Your task to perform on an android device: change alarm snooze length Image 0: 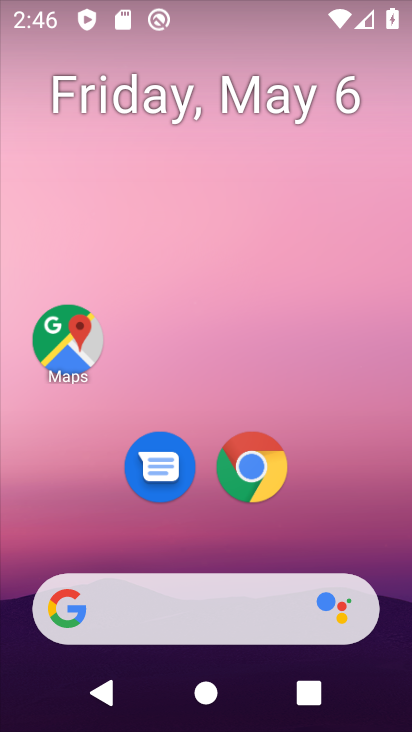
Step 0: drag from (199, 455) to (246, 39)
Your task to perform on an android device: change alarm snooze length Image 1: 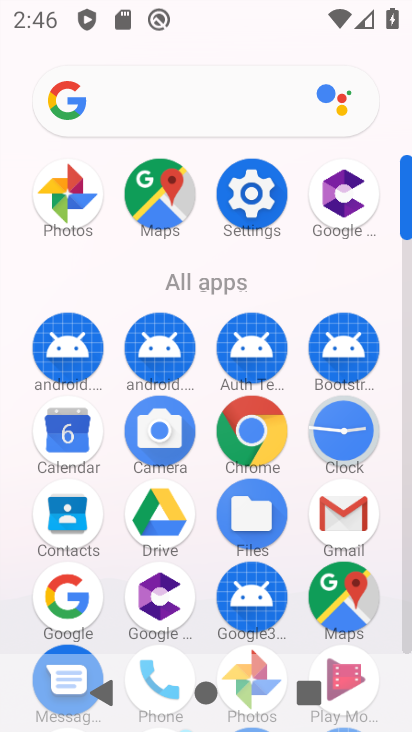
Step 1: click (336, 435)
Your task to perform on an android device: change alarm snooze length Image 2: 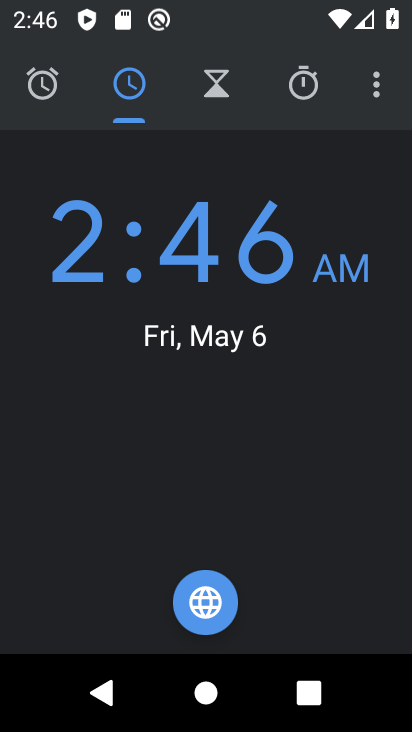
Step 2: click (375, 94)
Your task to perform on an android device: change alarm snooze length Image 3: 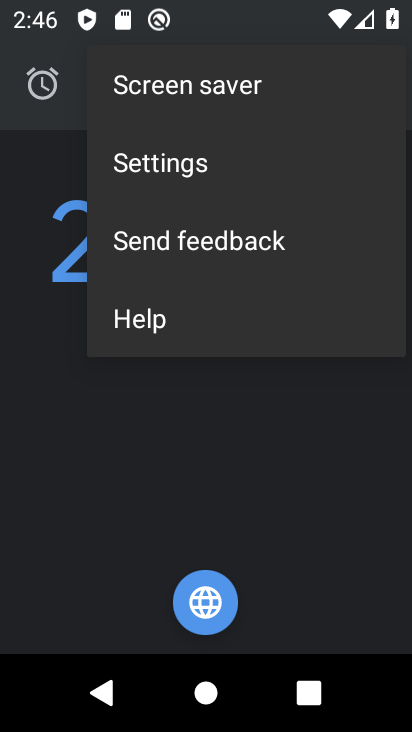
Step 3: click (202, 173)
Your task to perform on an android device: change alarm snooze length Image 4: 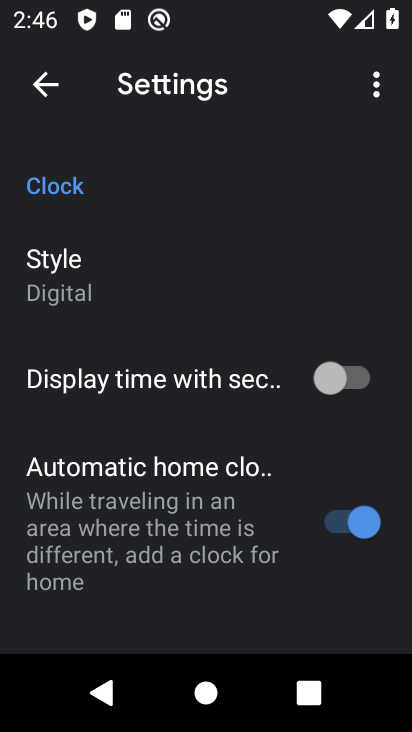
Step 4: drag from (204, 502) to (223, 234)
Your task to perform on an android device: change alarm snooze length Image 5: 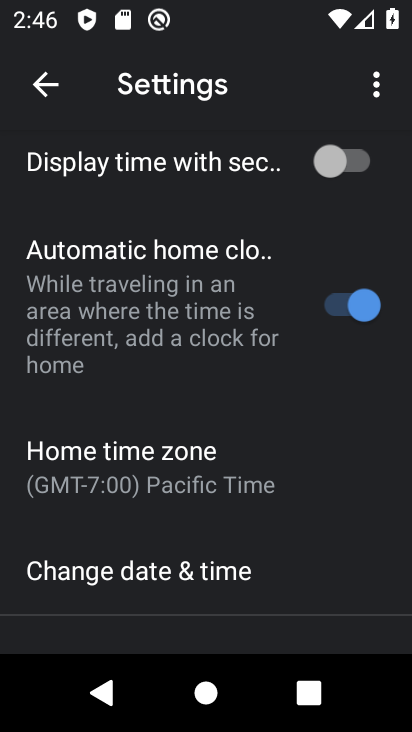
Step 5: drag from (208, 427) to (277, 103)
Your task to perform on an android device: change alarm snooze length Image 6: 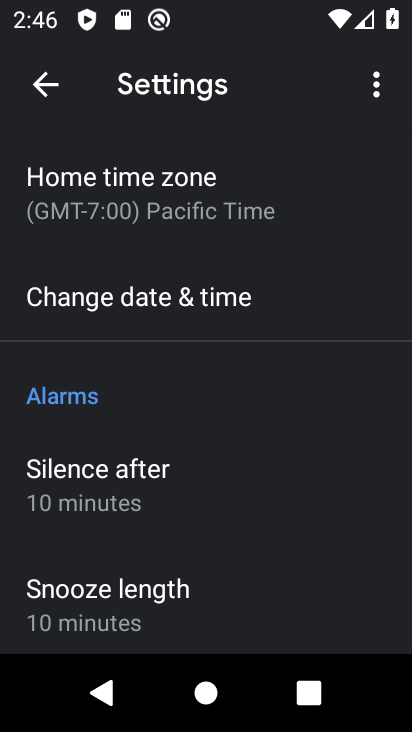
Step 6: click (154, 600)
Your task to perform on an android device: change alarm snooze length Image 7: 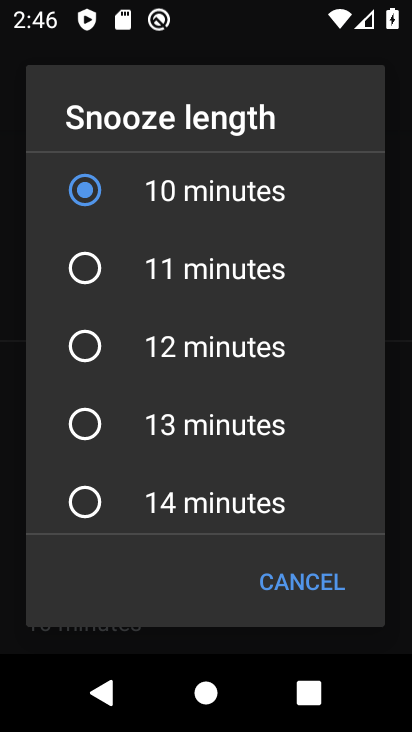
Step 7: click (180, 357)
Your task to perform on an android device: change alarm snooze length Image 8: 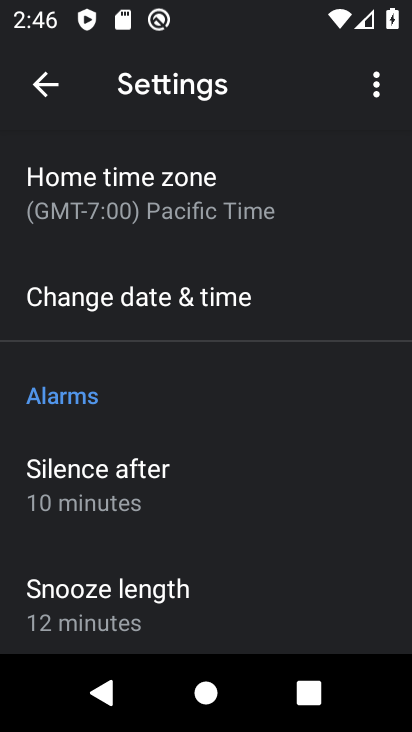
Step 8: task complete